Your task to perform on an android device: Open the calendar app, open the side menu, and click the "Day" option Image 0: 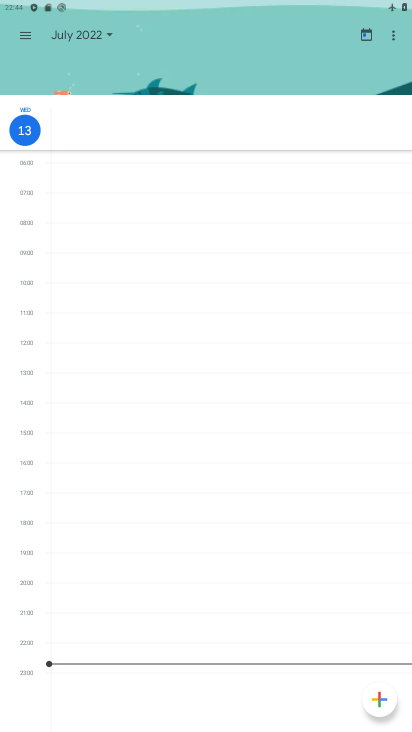
Step 0: click (25, 34)
Your task to perform on an android device: Open the calendar app, open the side menu, and click the "Day" option Image 1: 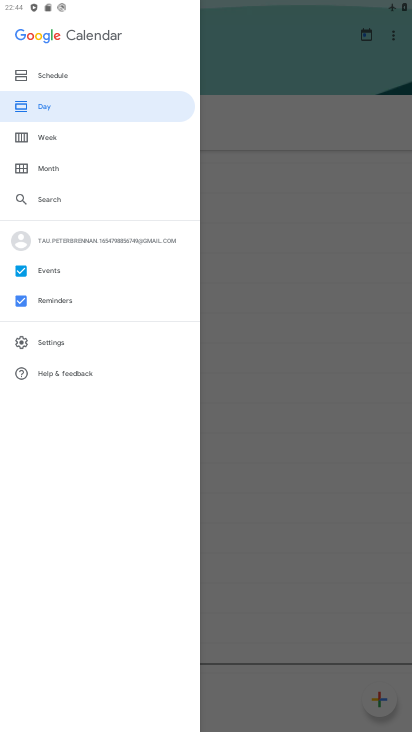
Step 1: click (47, 101)
Your task to perform on an android device: Open the calendar app, open the side menu, and click the "Day" option Image 2: 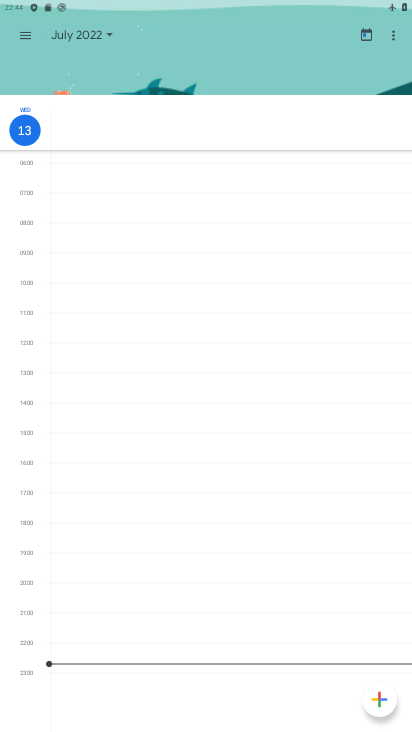
Step 2: task complete